Your task to perform on an android device: Turn off the flashlight Image 0: 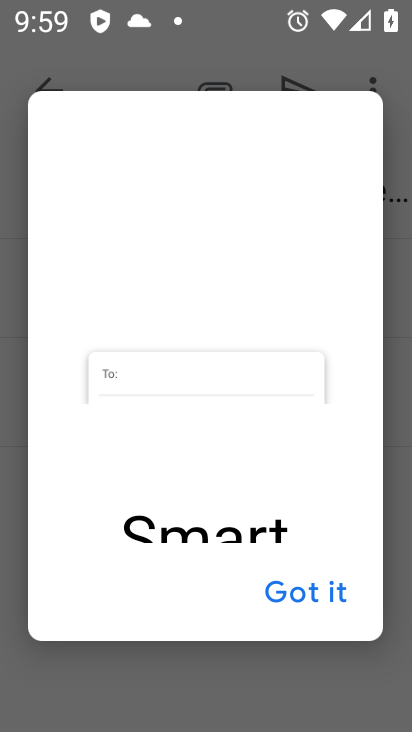
Step 0: click (303, 598)
Your task to perform on an android device: Turn off the flashlight Image 1: 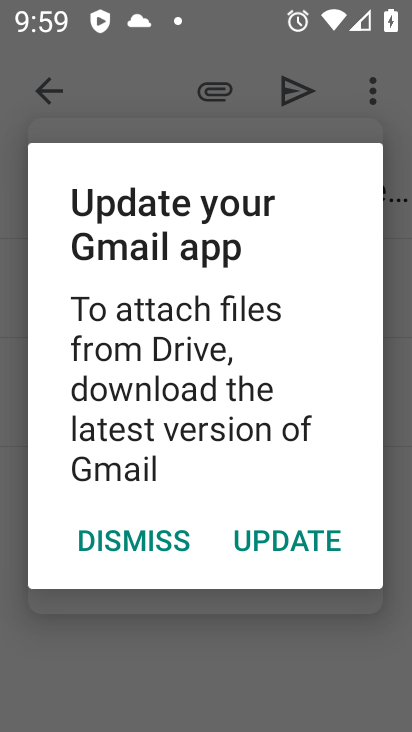
Step 1: press home button
Your task to perform on an android device: Turn off the flashlight Image 2: 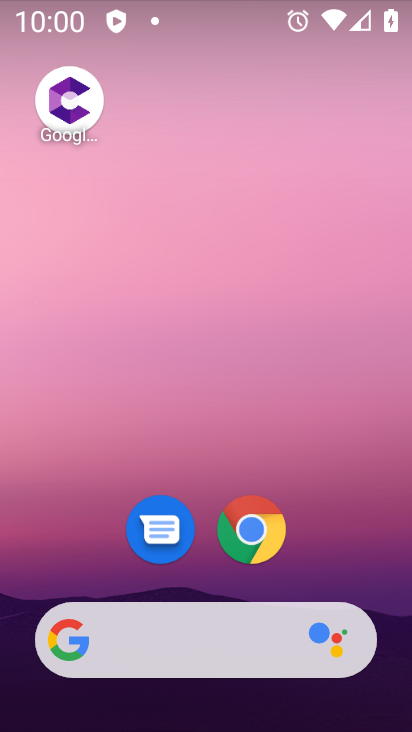
Step 2: drag from (359, 526) to (390, 21)
Your task to perform on an android device: Turn off the flashlight Image 3: 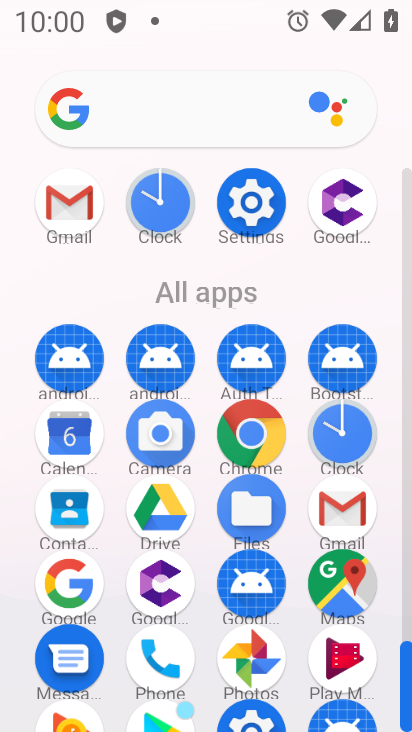
Step 3: click (271, 212)
Your task to perform on an android device: Turn off the flashlight Image 4: 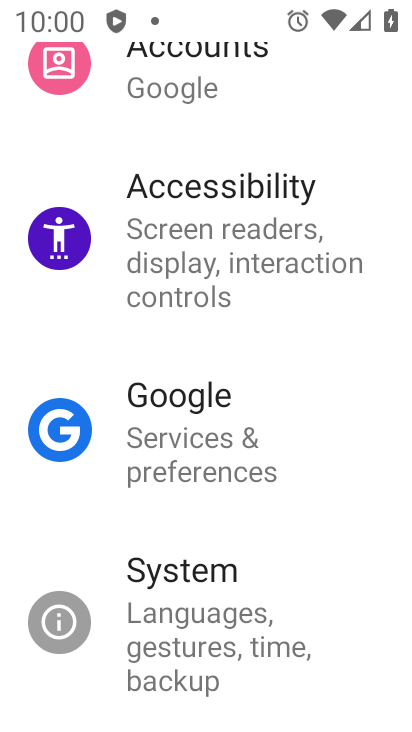
Step 4: task complete